Your task to perform on an android device: change text size in settings app Image 0: 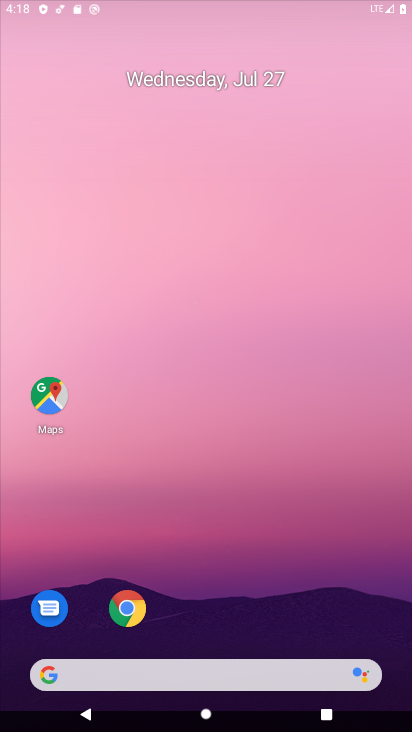
Step 0: drag from (306, 662) to (274, 120)
Your task to perform on an android device: change text size in settings app Image 1: 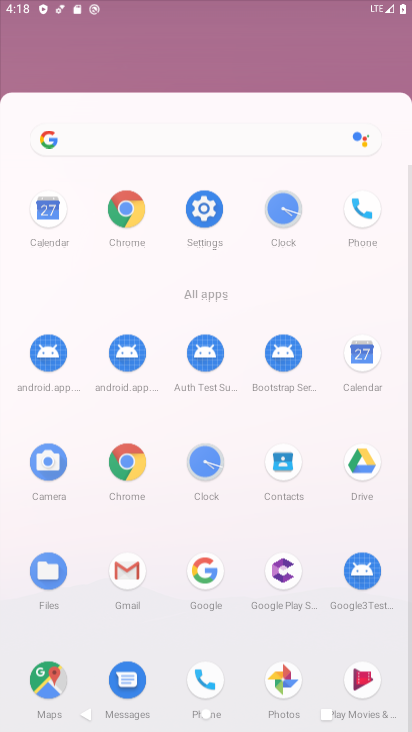
Step 1: drag from (210, 519) to (209, 120)
Your task to perform on an android device: change text size in settings app Image 2: 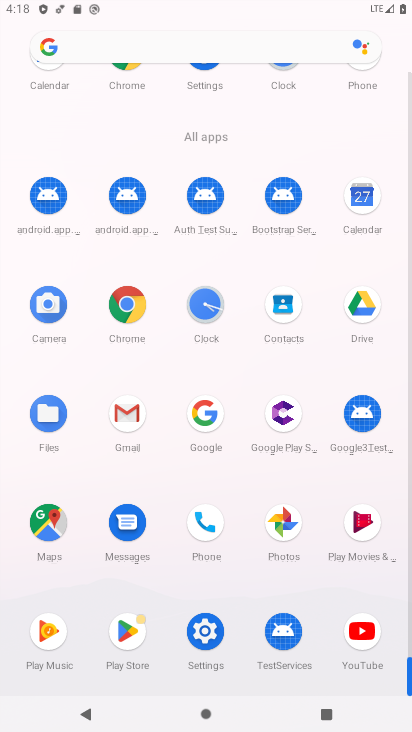
Step 2: click (201, 648)
Your task to perform on an android device: change text size in settings app Image 3: 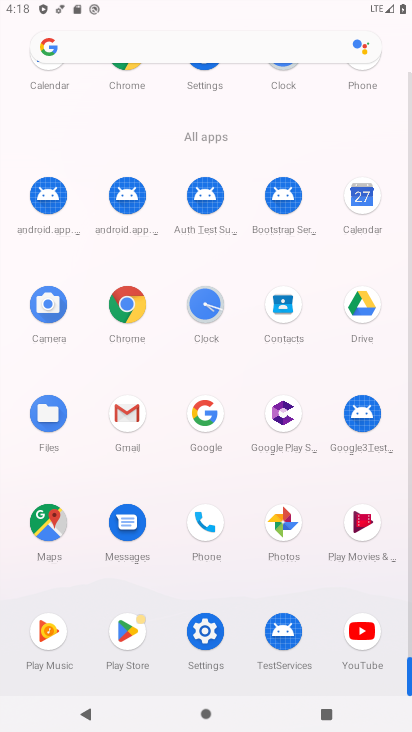
Step 3: click (201, 644)
Your task to perform on an android device: change text size in settings app Image 4: 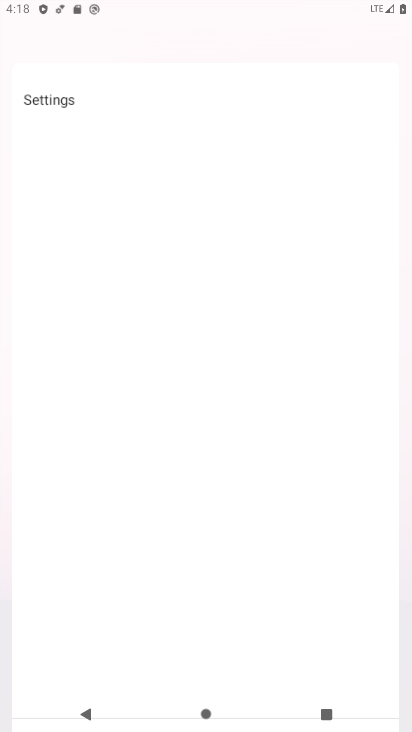
Step 4: click (201, 642)
Your task to perform on an android device: change text size in settings app Image 5: 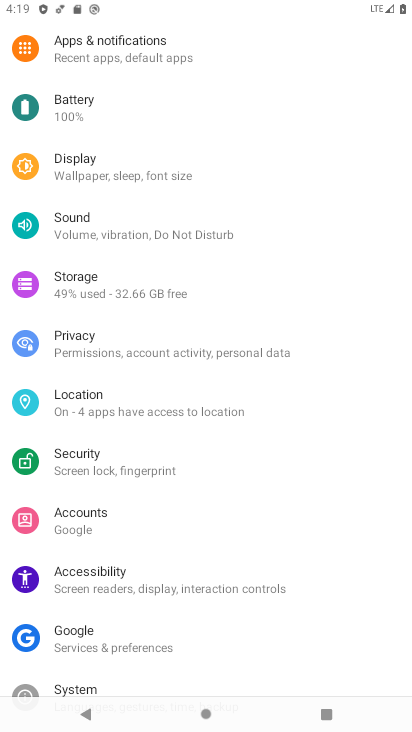
Step 5: click (89, 173)
Your task to perform on an android device: change text size in settings app Image 6: 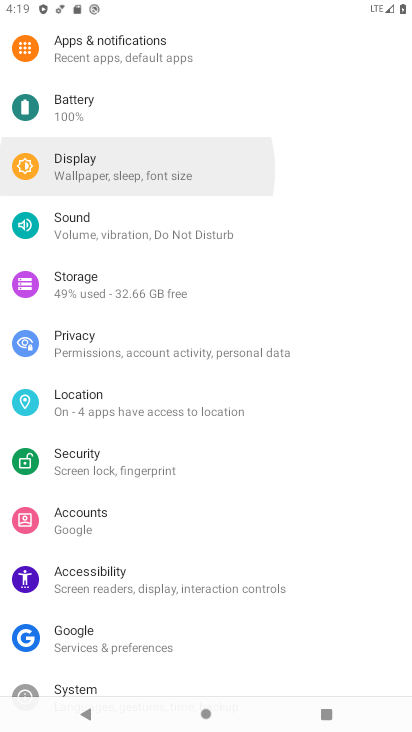
Step 6: click (90, 173)
Your task to perform on an android device: change text size in settings app Image 7: 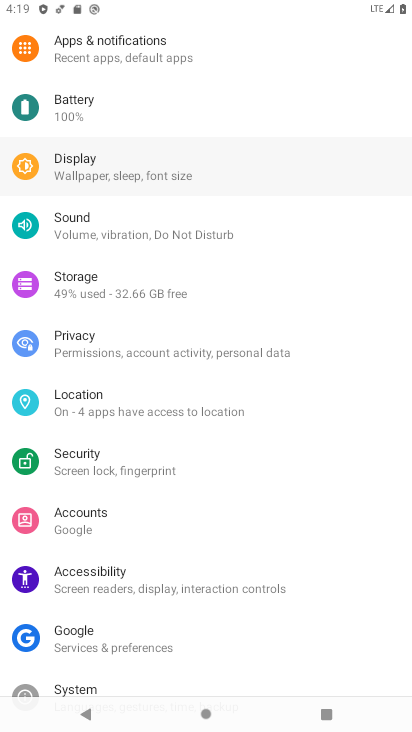
Step 7: click (90, 173)
Your task to perform on an android device: change text size in settings app Image 8: 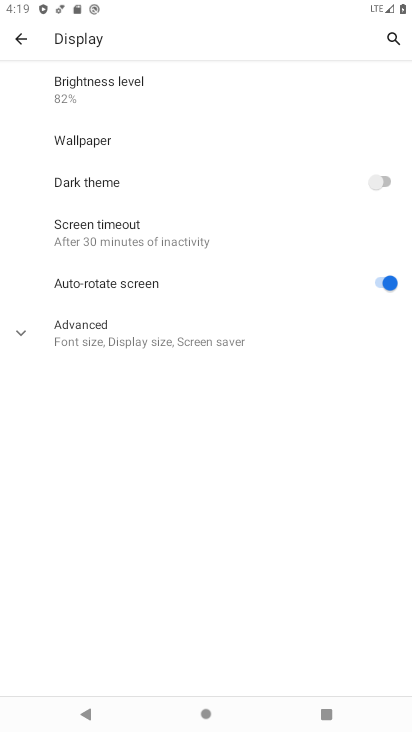
Step 8: click (85, 320)
Your task to perform on an android device: change text size in settings app Image 9: 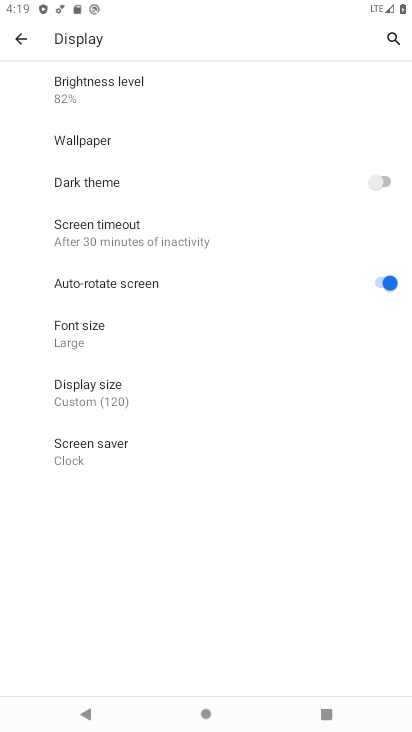
Step 9: click (76, 333)
Your task to perform on an android device: change text size in settings app Image 10: 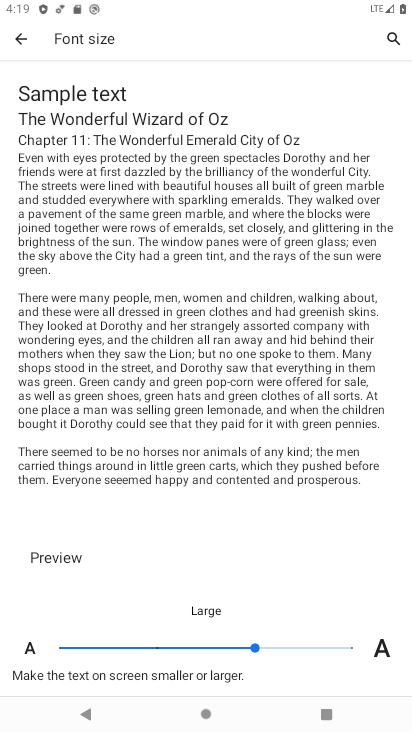
Step 10: click (347, 652)
Your task to perform on an android device: change text size in settings app Image 11: 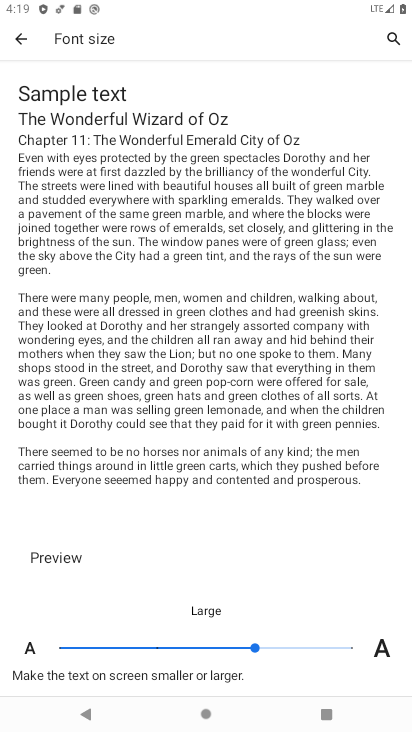
Step 11: click (347, 644)
Your task to perform on an android device: change text size in settings app Image 12: 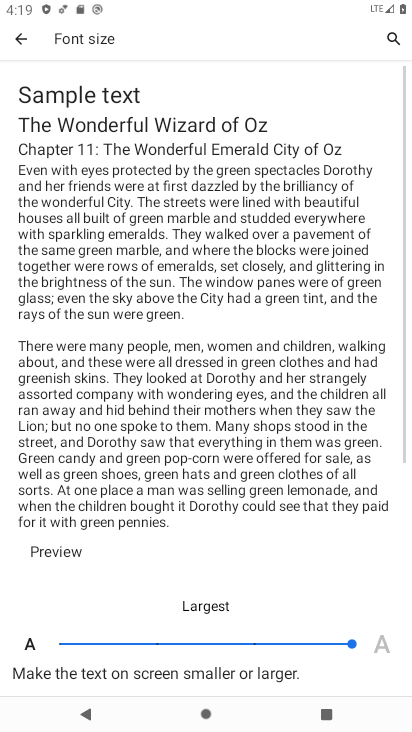
Step 12: task complete